Your task to perform on an android device: View the shopping cart on walmart.com. Image 0: 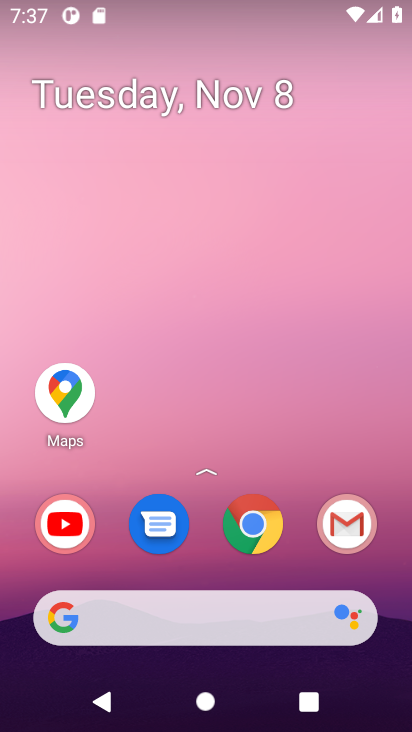
Step 0: click (261, 526)
Your task to perform on an android device: View the shopping cart on walmart.com. Image 1: 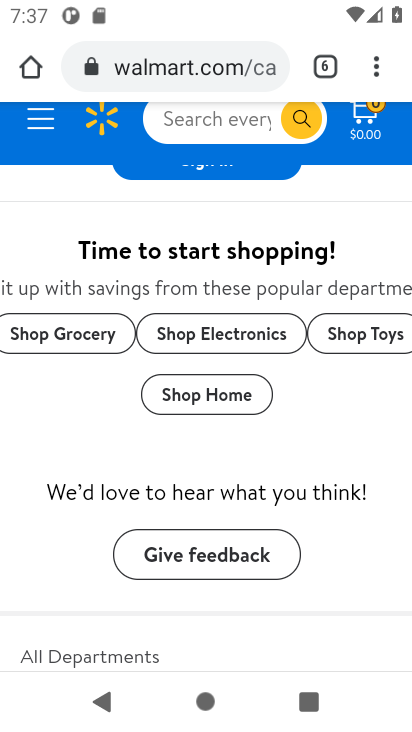
Step 1: click (362, 122)
Your task to perform on an android device: View the shopping cart on walmart.com. Image 2: 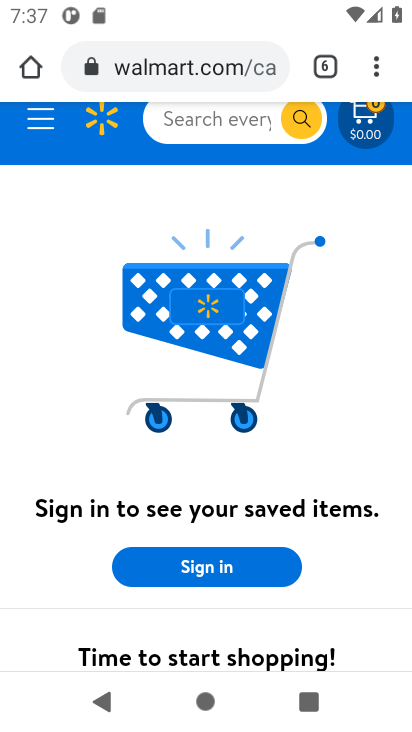
Step 2: task complete